Your task to perform on an android device: Search for hotels in Atlanta Image 0: 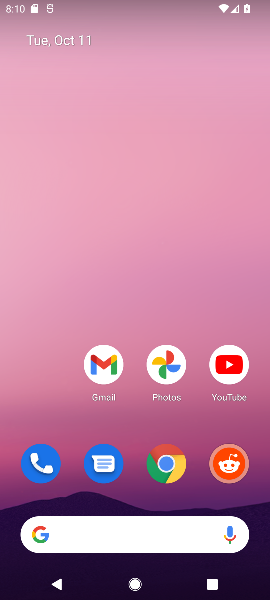
Step 0: drag from (88, 473) to (91, 98)
Your task to perform on an android device: Search for hotels in Atlanta Image 1: 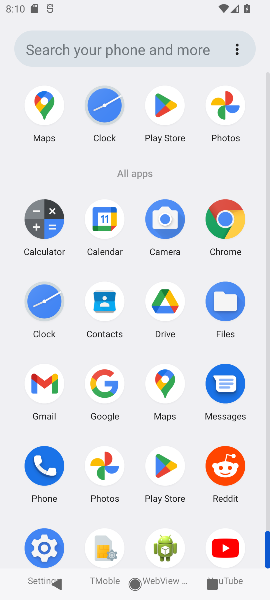
Step 1: click (97, 378)
Your task to perform on an android device: Search for hotels in Atlanta Image 2: 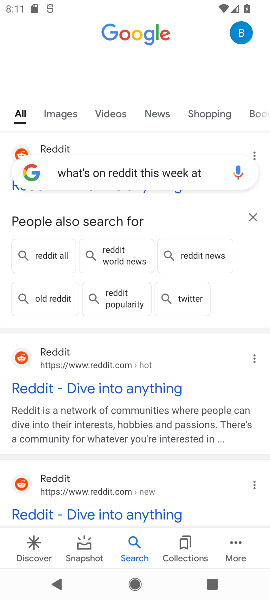
Step 2: click (106, 172)
Your task to perform on an android device: Search for hotels in Atlanta Image 3: 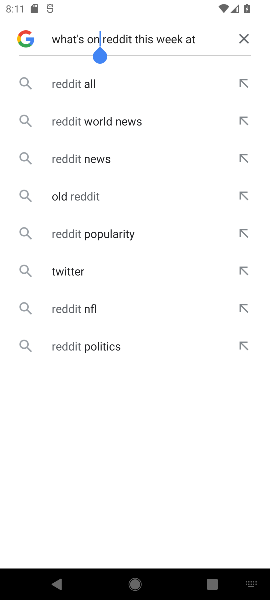
Step 3: click (245, 37)
Your task to perform on an android device: Search for hotels in Atlanta Image 4: 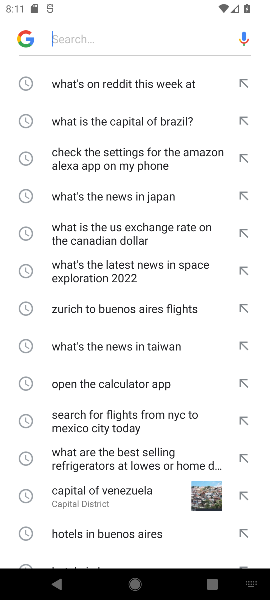
Step 4: click (153, 33)
Your task to perform on an android device: Search for hotels in Atlanta Image 5: 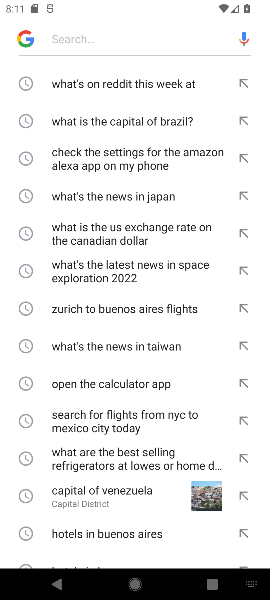
Step 5: type "Search for hotels in Atlanta "
Your task to perform on an android device: Search for hotels in Atlanta Image 6: 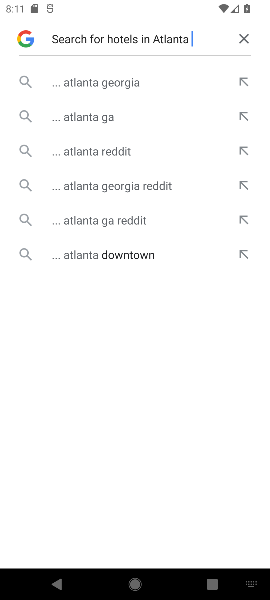
Step 6: click (81, 81)
Your task to perform on an android device: Search for hotels in Atlanta Image 7: 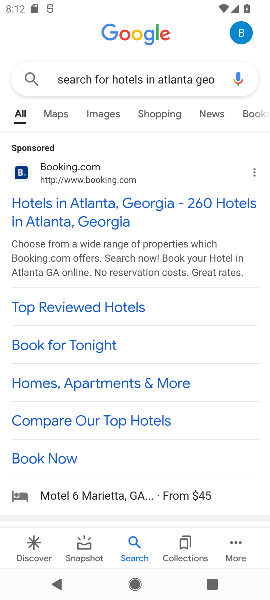
Step 7: drag from (71, 489) to (86, 267)
Your task to perform on an android device: Search for hotels in Atlanta Image 8: 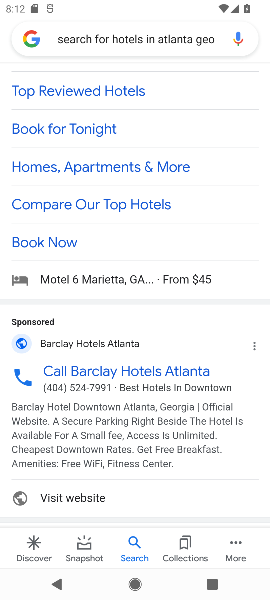
Step 8: click (125, 367)
Your task to perform on an android device: Search for hotels in Atlanta Image 9: 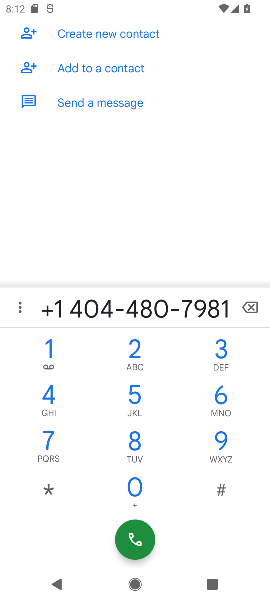
Step 9: press back button
Your task to perform on an android device: Search for hotels in Atlanta Image 10: 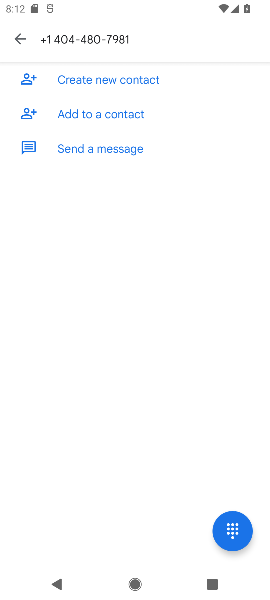
Step 10: press back button
Your task to perform on an android device: Search for hotels in Atlanta Image 11: 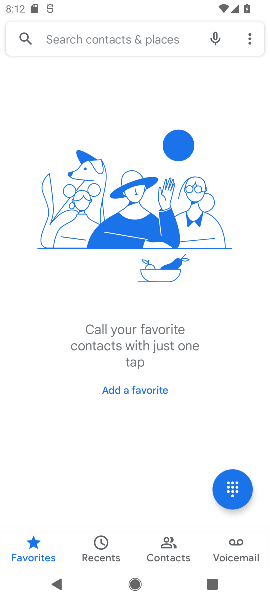
Step 11: press back button
Your task to perform on an android device: Search for hotels in Atlanta Image 12: 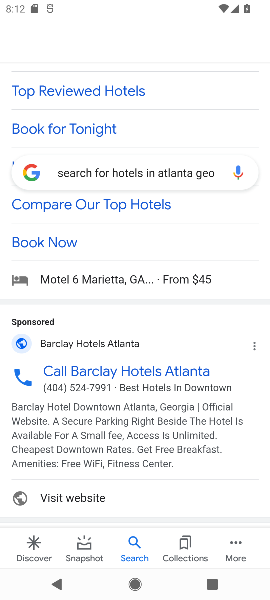
Step 12: drag from (78, 218) to (84, 597)
Your task to perform on an android device: Search for hotels in Atlanta Image 13: 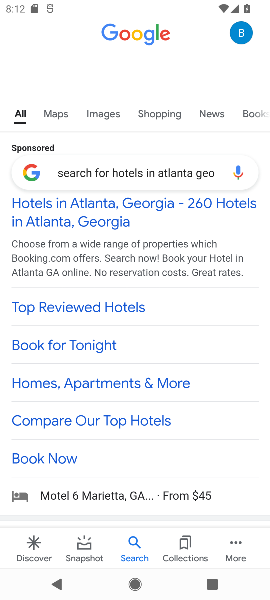
Step 13: click (50, 199)
Your task to perform on an android device: Search for hotels in Atlanta Image 14: 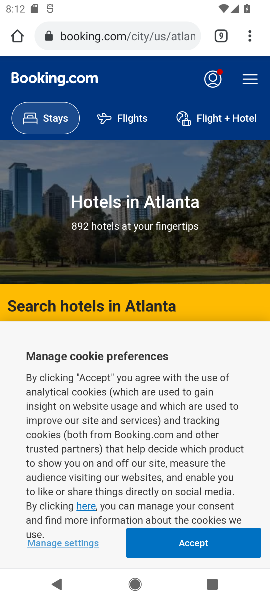
Step 14: click (121, 446)
Your task to perform on an android device: Search for hotels in Atlanta Image 15: 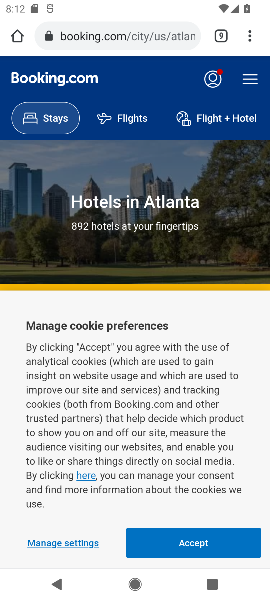
Step 15: click (182, 539)
Your task to perform on an android device: Search for hotels in Atlanta Image 16: 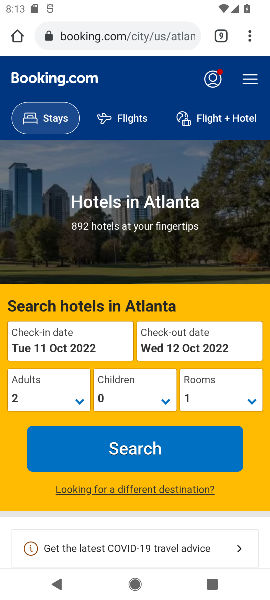
Step 16: click (196, 449)
Your task to perform on an android device: Search for hotels in Atlanta Image 17: 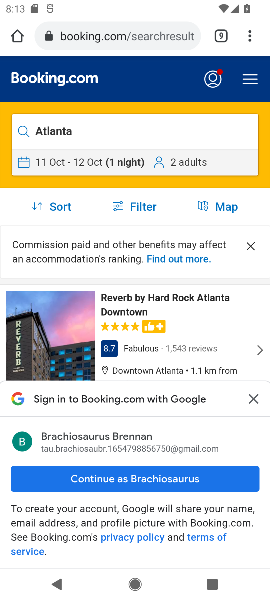
Step 17: drag from (131, 526) to (132, 321)
Your task to perform on an android device: Search for hotels in Atlanta Image 18: 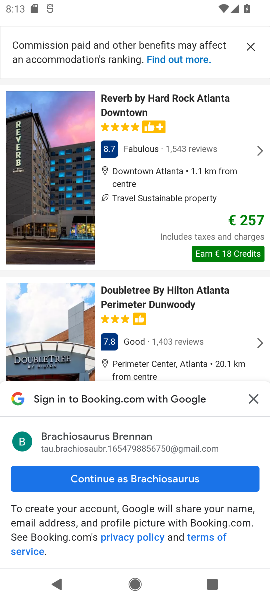
Step 18: click (250, 404)
Your task to perform on an android device: Search for hotels in Atlanta Image 19: 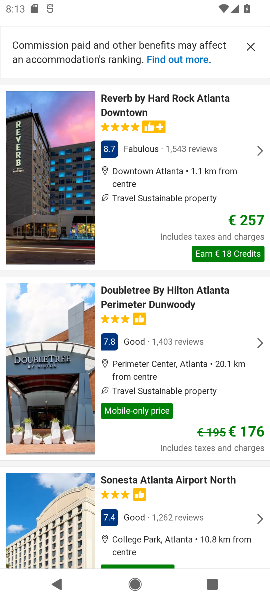
Step 19: task complete